Your task to perform on an android device: show emergency info Image 0: 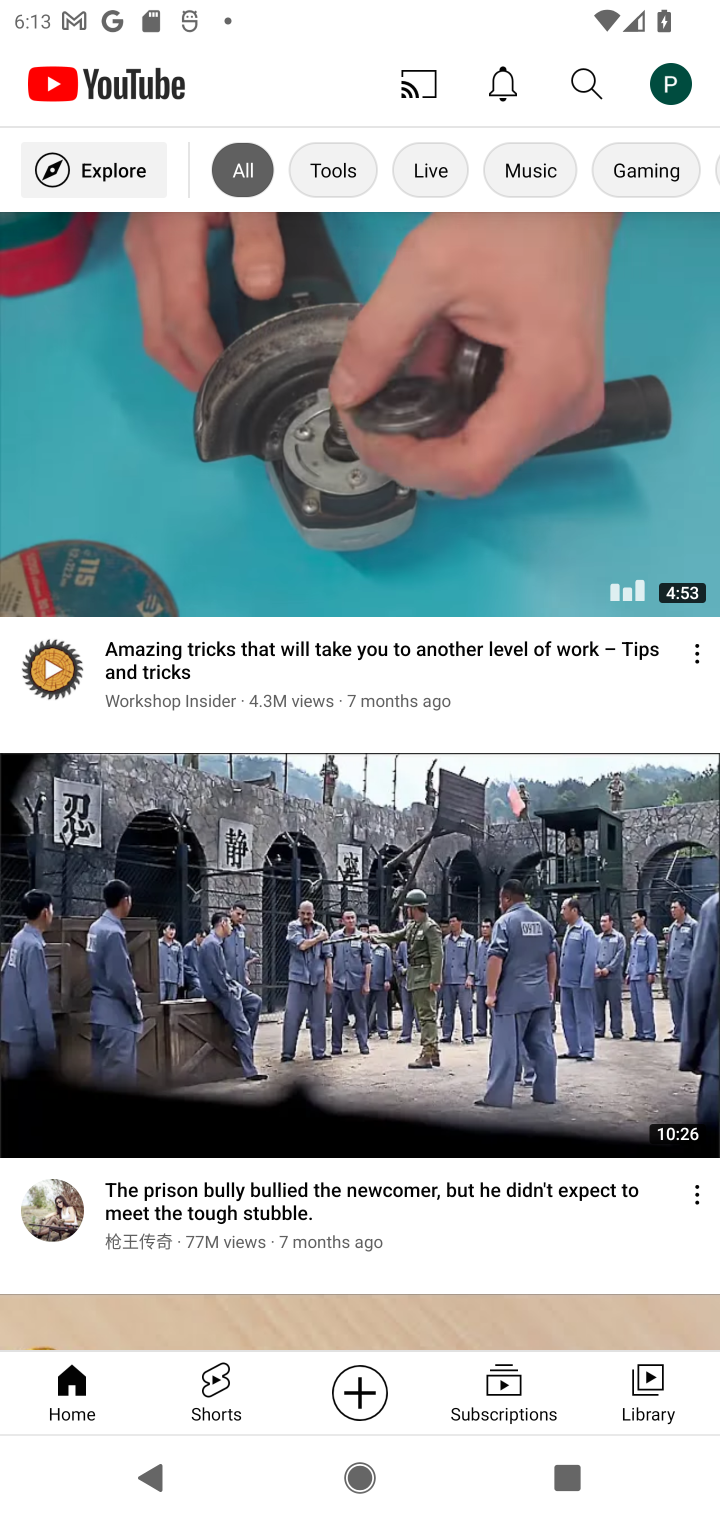
Step 0: press home button
Your task to perform on an android device: show emergency info Image 1: 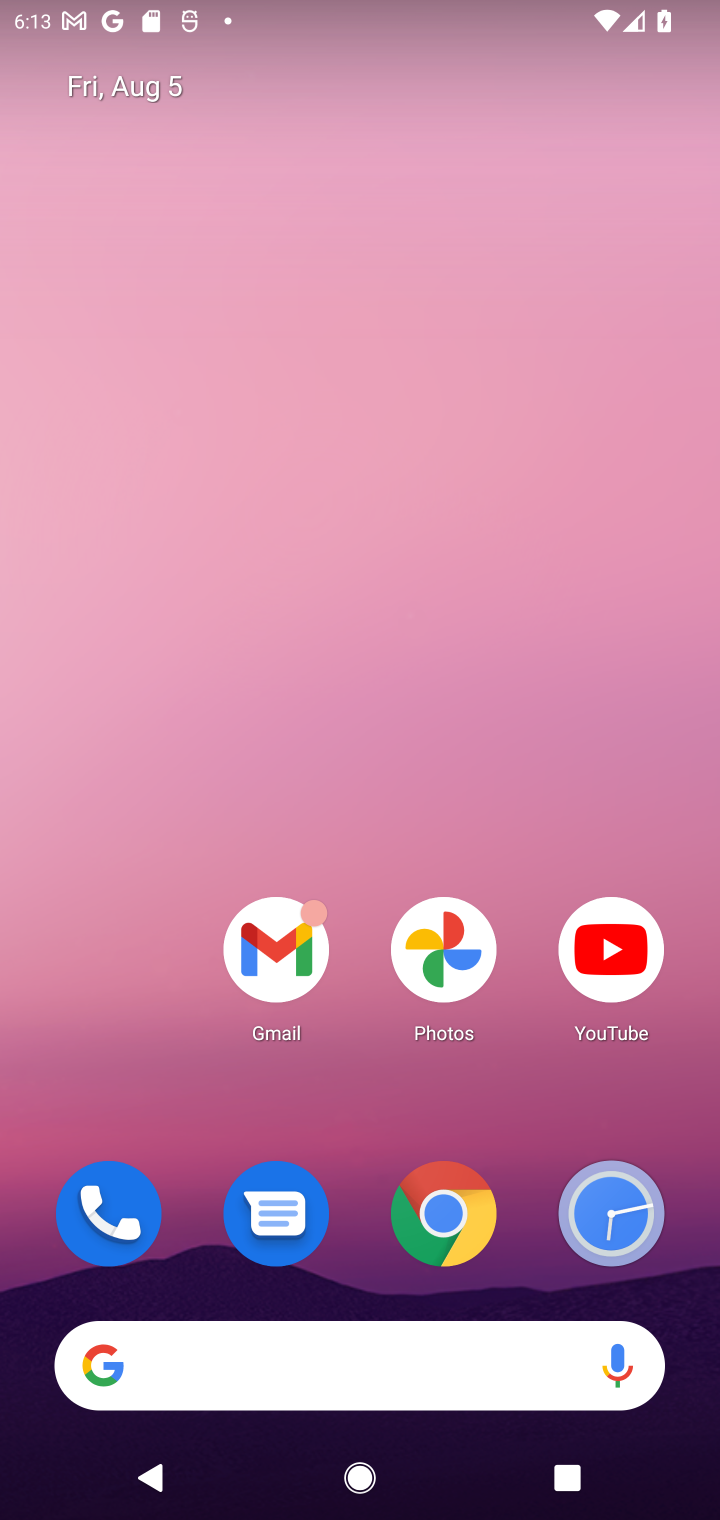
Step 1: drag from (359, 1285) to (363, 118)
Your task to perform on an android device: show emergency info Image 2: 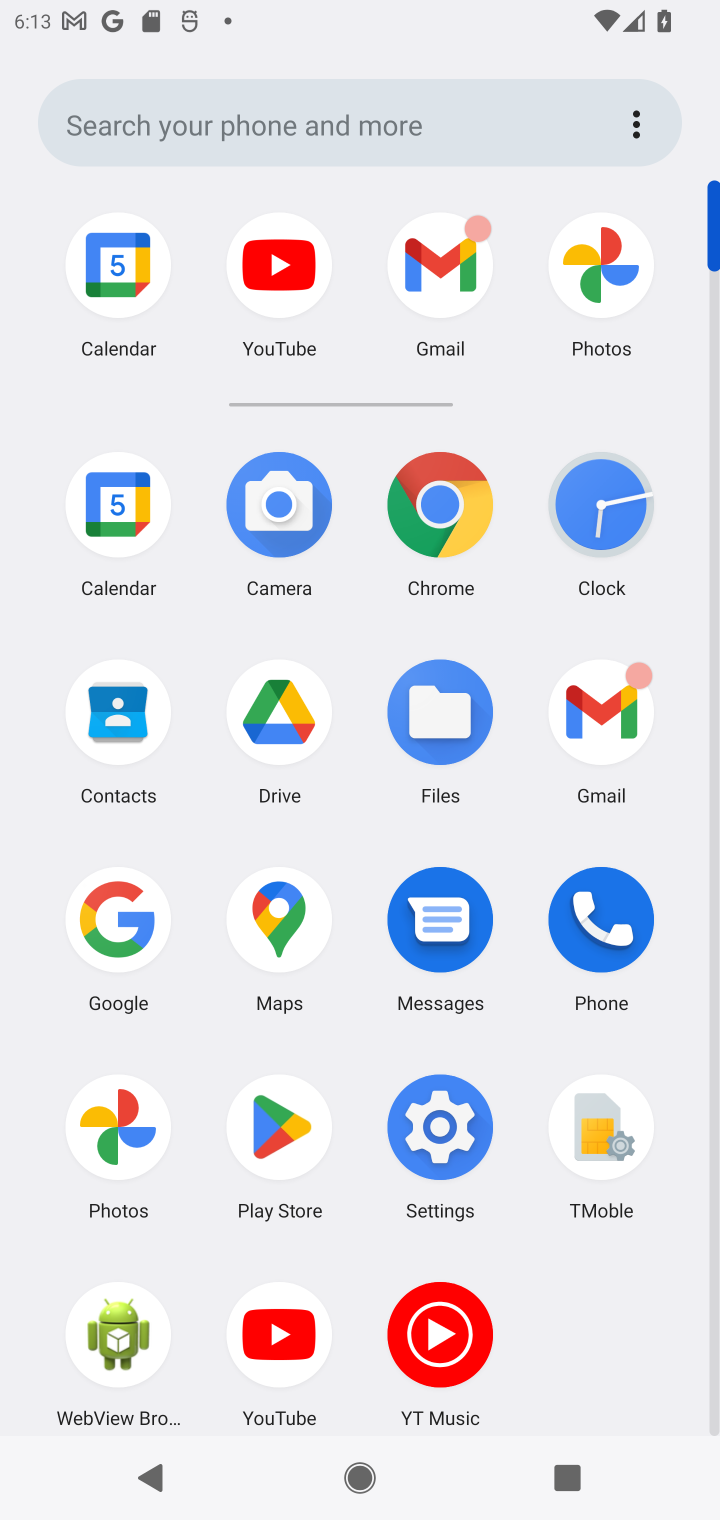
Step 2: click (407, 1095)
Your task to perform on an android device: show emergency info Image 3: 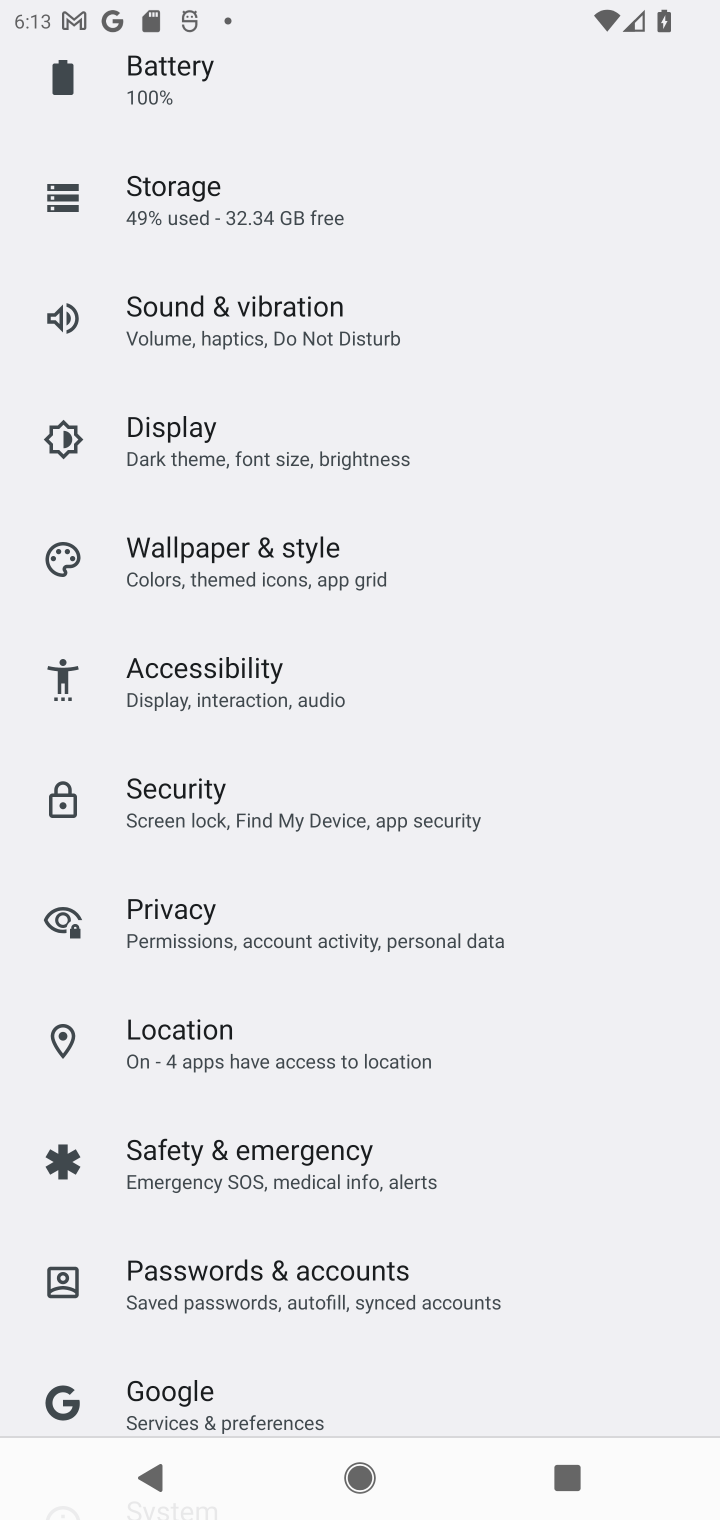
Step 3: drag from (326, 1281) to (327, 569)
Your task to perform on an android device: show emergency info Image 4: 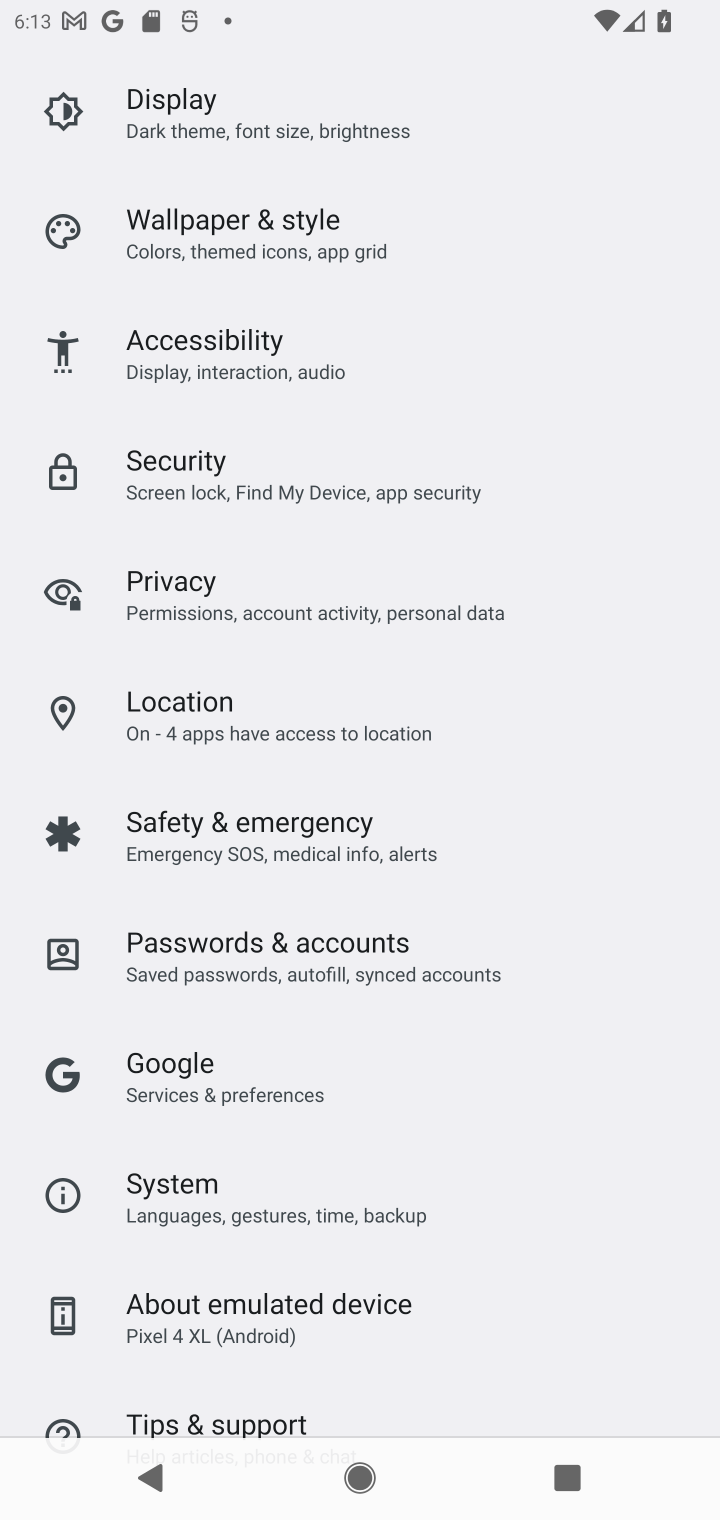
Step 4: click (310, 868)
Your task to perform on an android device: show emergency info Image 5: 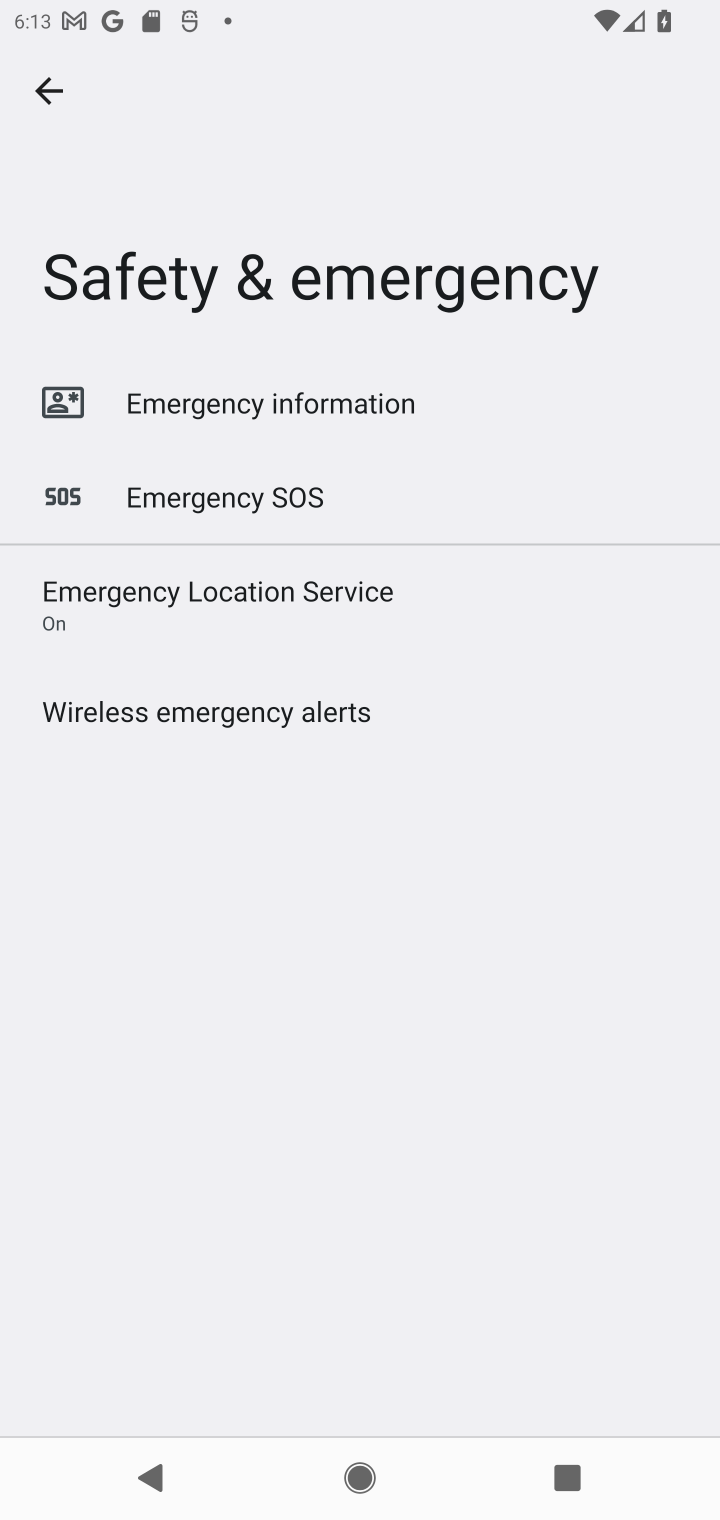
Step 5: click (383, 408)
Your task to perform on an android device: show emergency info Image 6: 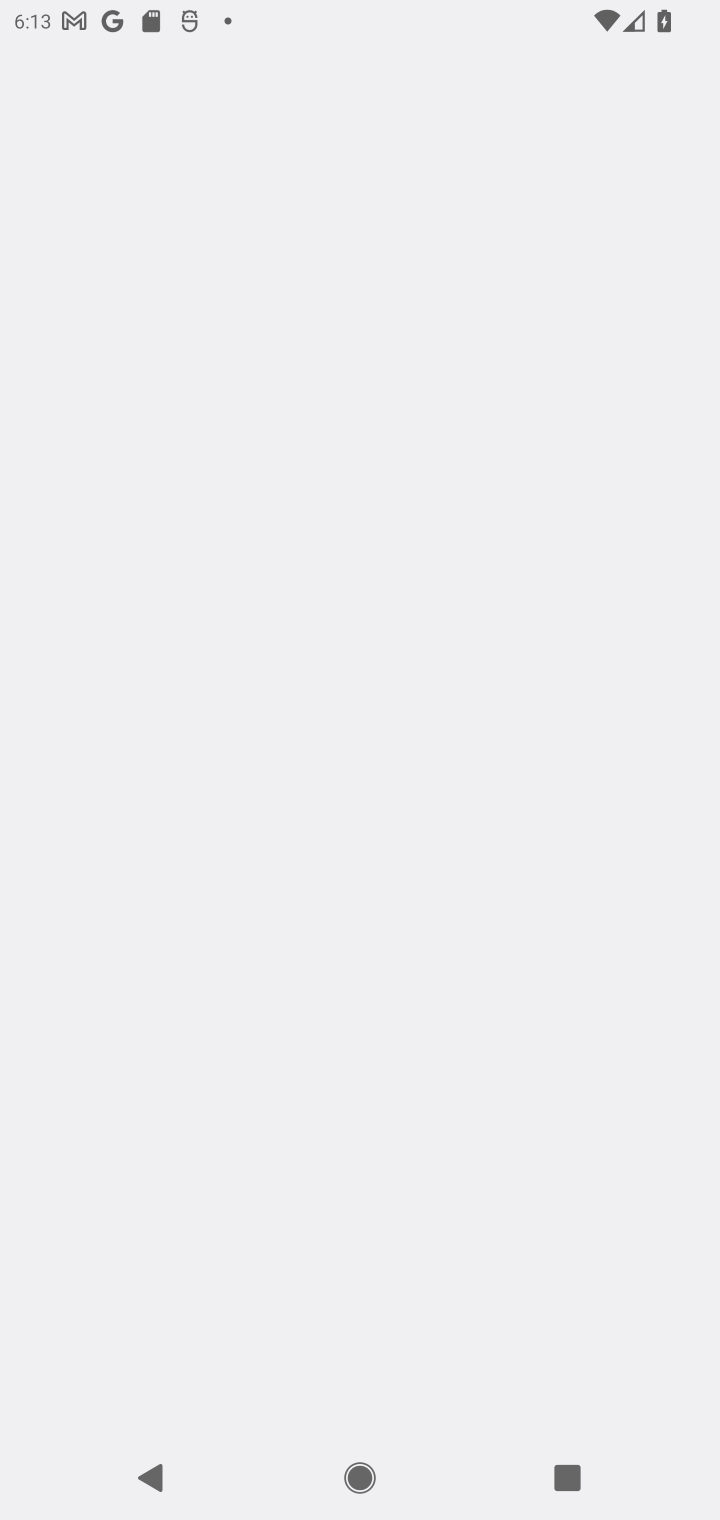
Step 6: task complete